Your task to perform on an android device: move a message to another label in the gmail app Image 0: 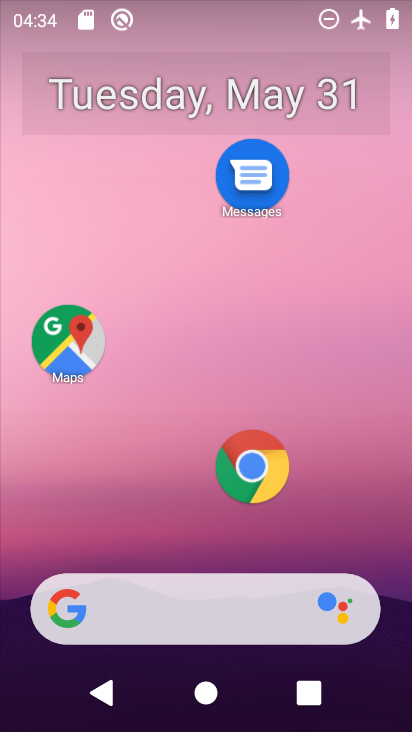
Step 0: drag from (164, 506) to (213, 35)
Your task to perform on an android device: move a message to another label in the gmail app Image 1: 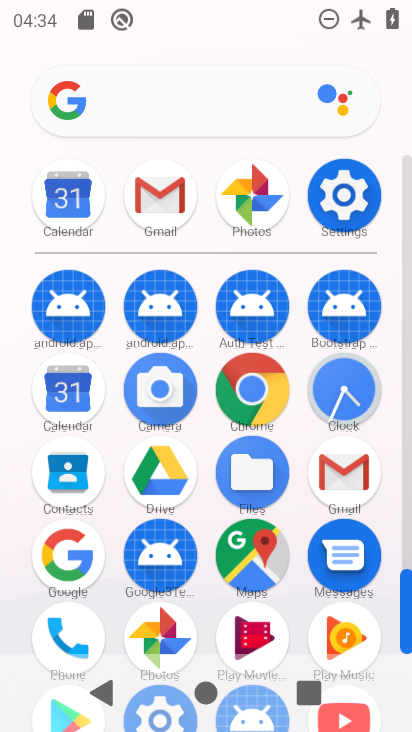
Step 1: click (151, 195)
Your task to perform on an android device: move a message to another label in the gmail app Image 2: 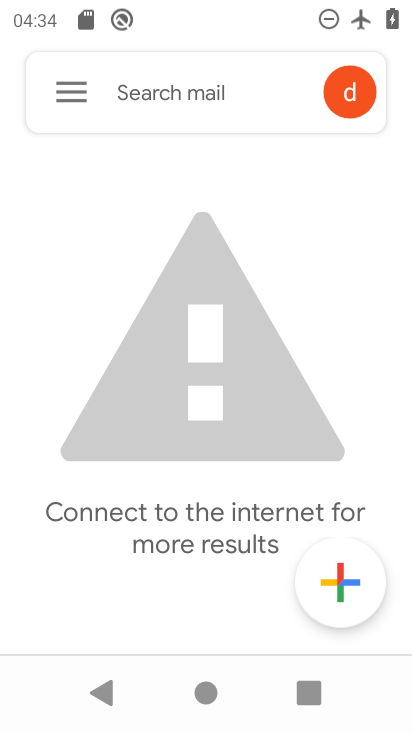
Step 2: drag from (318, 12) to (283, 598)
Your task to perform on an android device: move a message to another label in the gmail app Image 3: 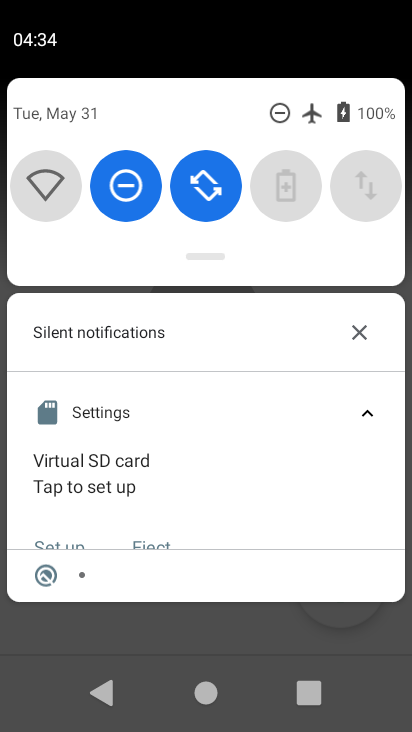
Step 3: drag from (194, 651) to (280, 159)
Your task to perform on an android device: move a message to another label in the gmail app Image 4: 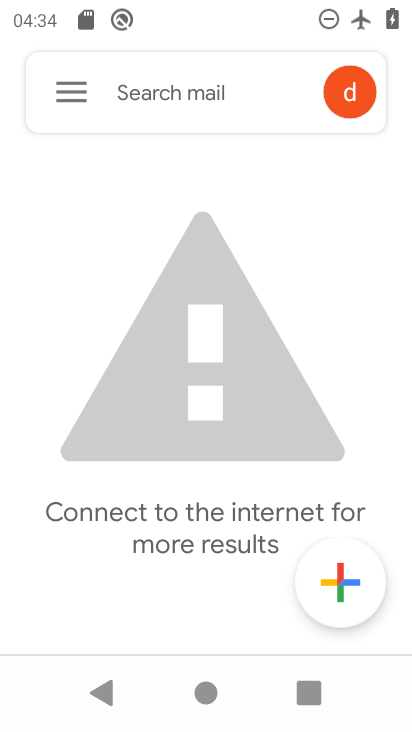
Step 4: drag from (278, 12) to (243, 506)
Your task to perform on an android device: move a message to another label in the gmail app Image 5: 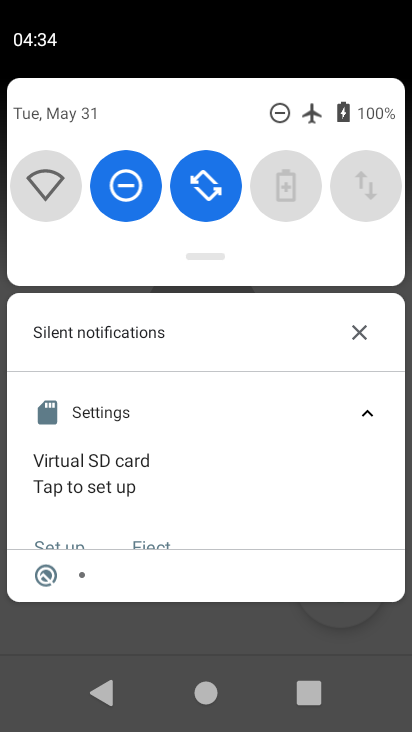
Step 5: drag from (201, 171) to (226, 601)
Your task to perform on an android device: move a message to another label in the gmail app Image 6: 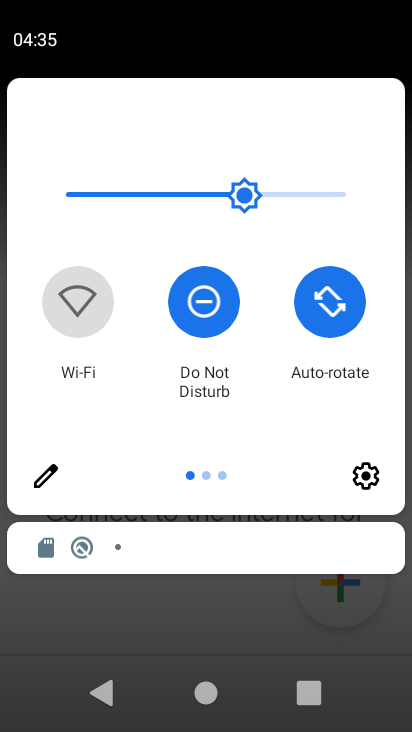
Step 6: drag from (352, 292) to (51, 298)
Your task to perform on an android device: move a message to another label in the gmail app Image 7: 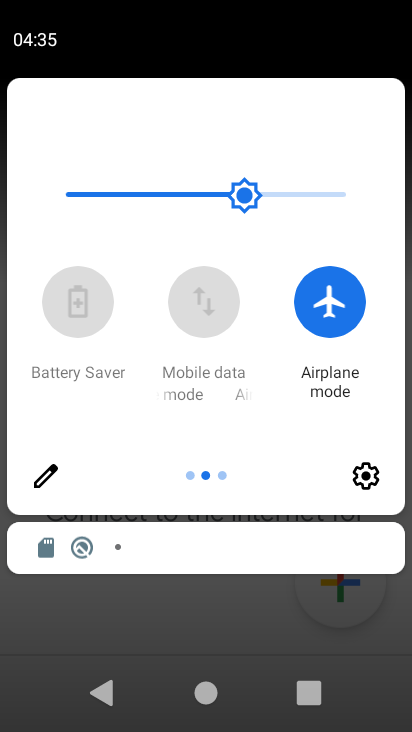
Step 7: click (340, 301)
Your task to perform on an android device: move a message to another label in the gmail app Image 8: 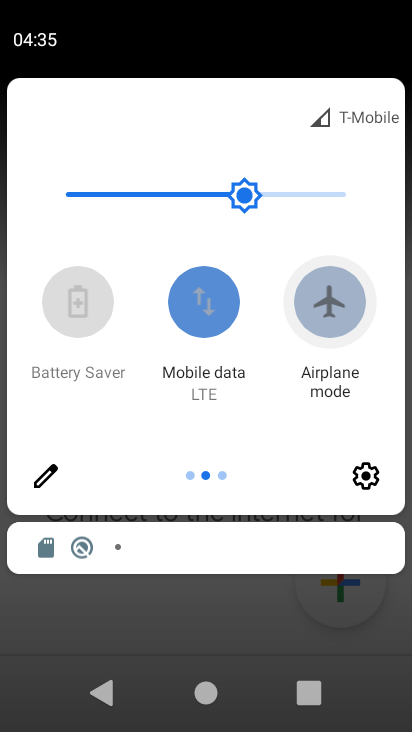
Step 8: click (152, 607)
Your task to perform on an android device: move a message to another label in the gmail app Image 9: 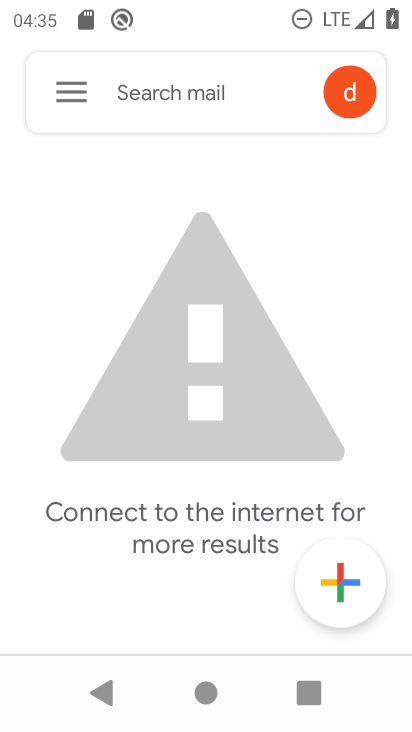
Step 9: click (58, 79)
Your task to perform on an android device: move a message to another label in the gmail app Image 10: 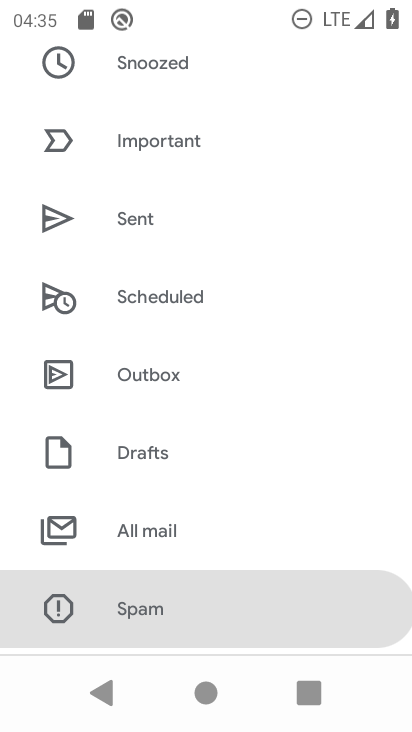
Step 10: click (173, 542)
Your task to perform on an android device: move a message to another label in the gmail app Image 11: 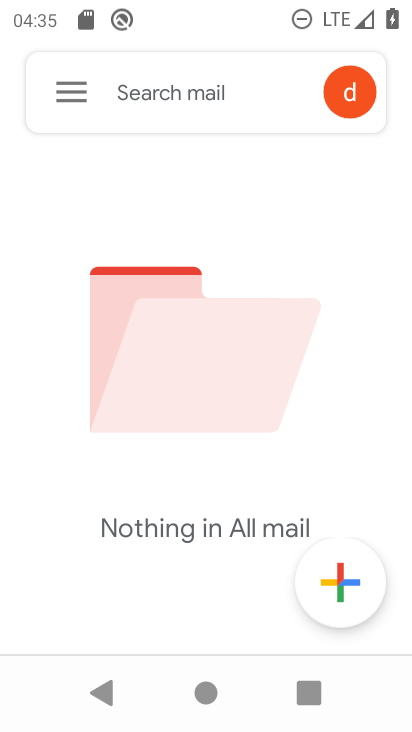
Step 11: task complete